Your task to perform on an android device: Open Reddit.com Image 0: 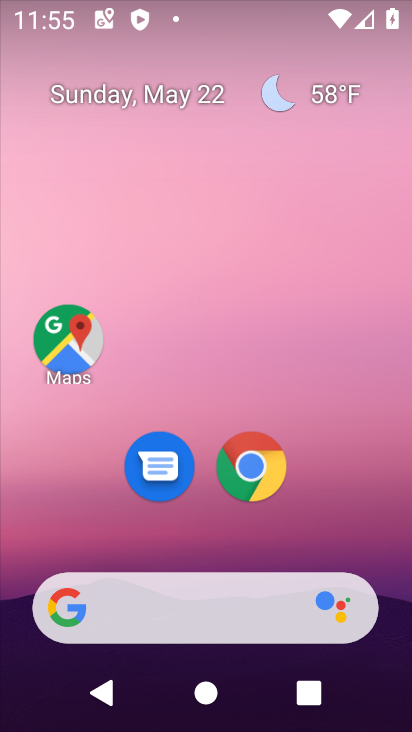
Step 0: click (253, 467)
Your task to perform on an android device: Open Reddit.com Image 1: 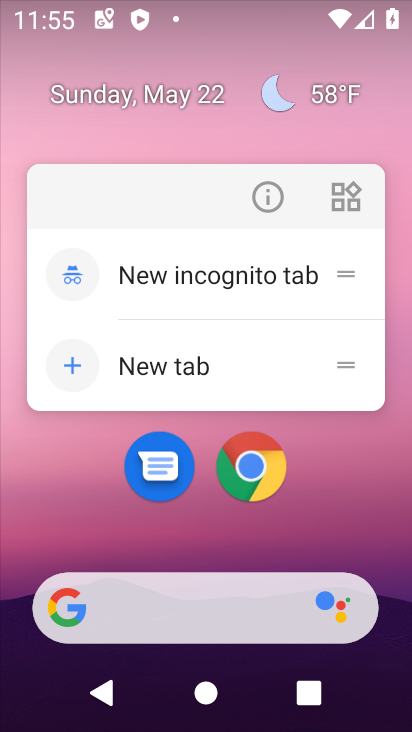
Step 1: click (259, 466)
Your task to perform on an android device: Open Reddit.com Image 2: 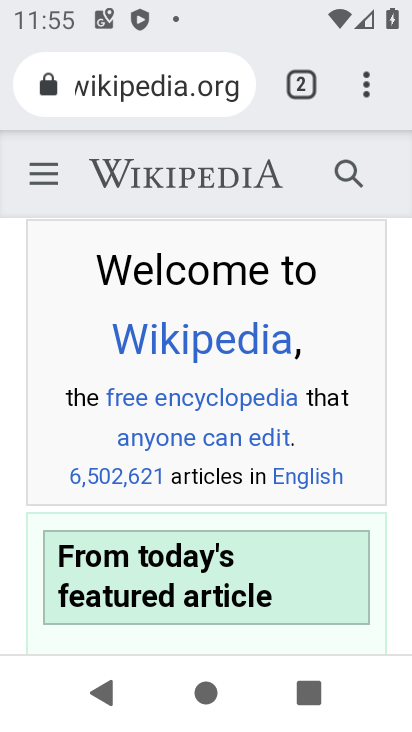
Step 2: click (182, 81)
Your task to perform on an android device: Open Reddit.com Image 3: 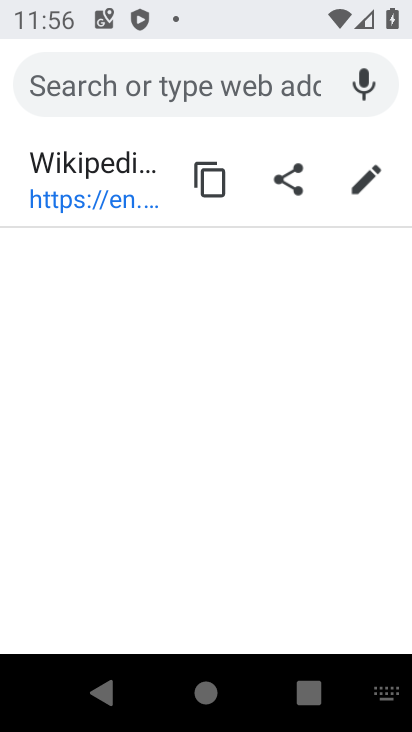
Step 3: type "reddit.com"
Your task to perform on an android device: Open Reddit.com Image 4: 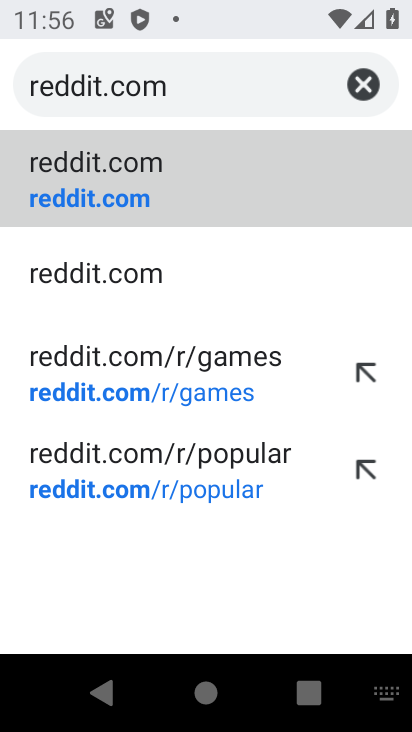
Step 4: click (221, 193)
Your task to perform on an android device: Open Reddit.com Image 5: 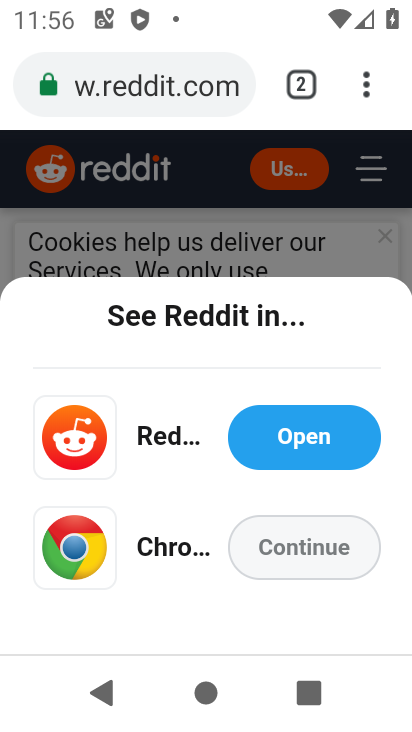
Step 5: task complete